Your task to perform on an android device: set an alarm Image 0: 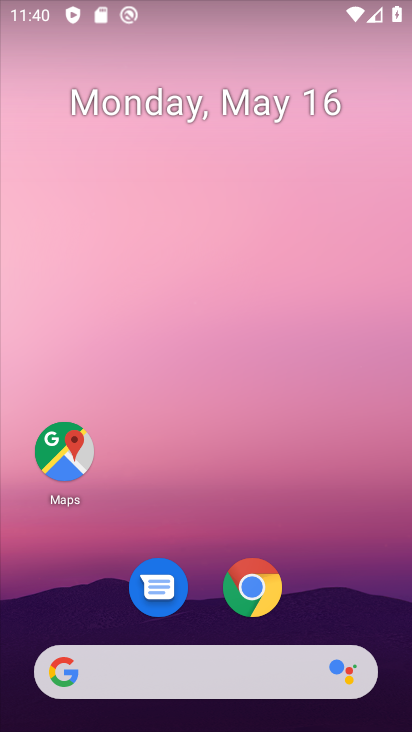
Step 0: drag from (358, 590) to (292, 208)
Your task to perform on an android device: set an alarm Image 1: 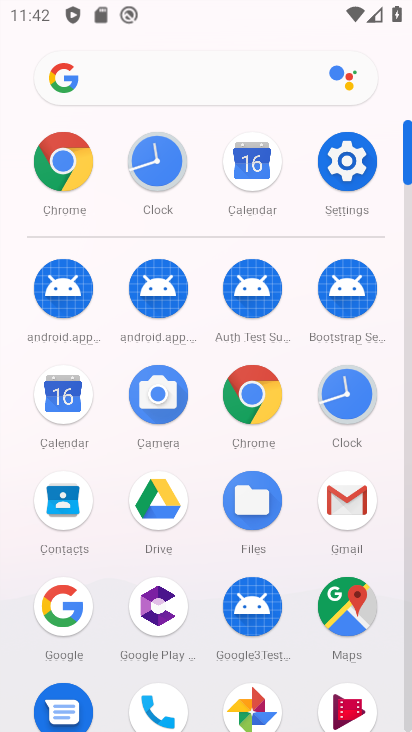
Step 1: click (355, 392)
Your task to perform on an android device: set an alarm Image 2: 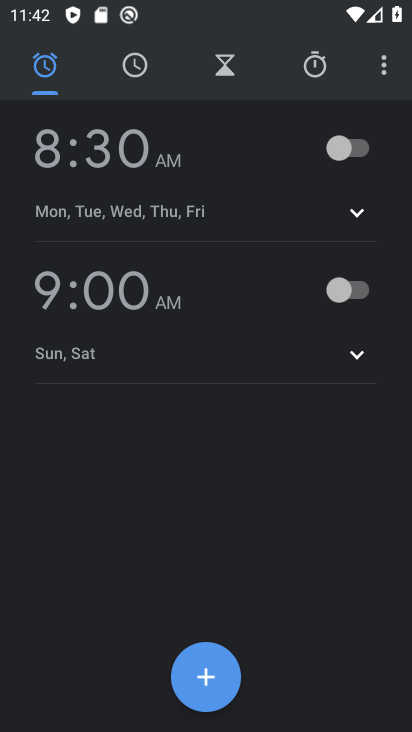
Step 2: click (336, 152)
Your task to perform on an android device: set an alarm Image 3: 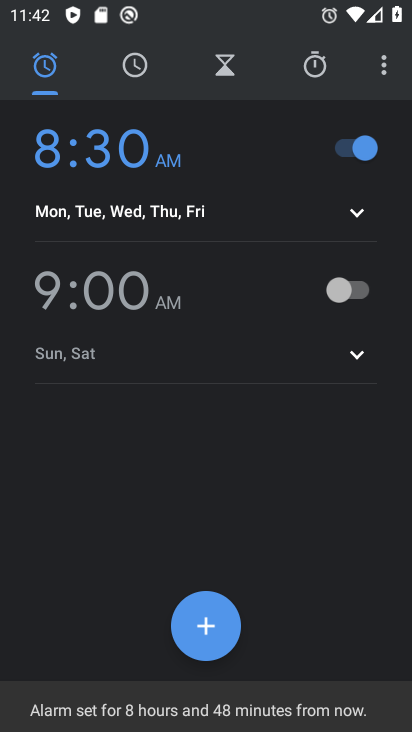
Step 3: task complete